Your task to perform on an android device: check out phone information Image 0: 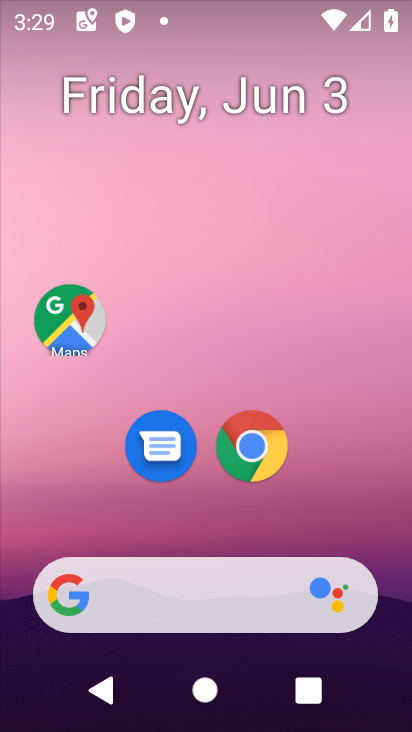
Step 0: drag from (343, 502) to (370, 86)
Your task to perform on an android device: check out phone information Image 1: 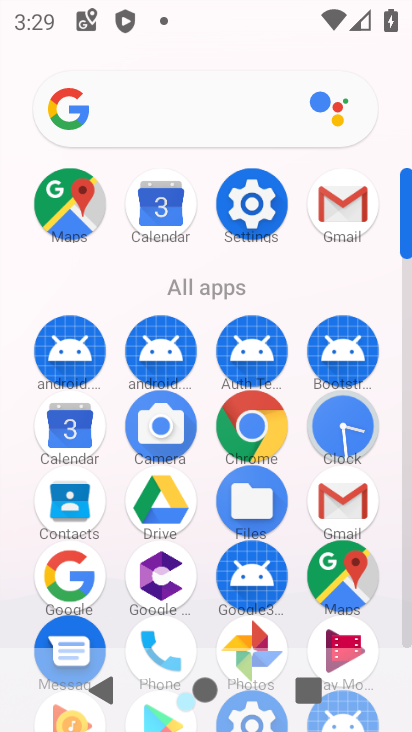
Step 1: click (277, 186)
Your task to perform on an android device: check out phone information Image 2: 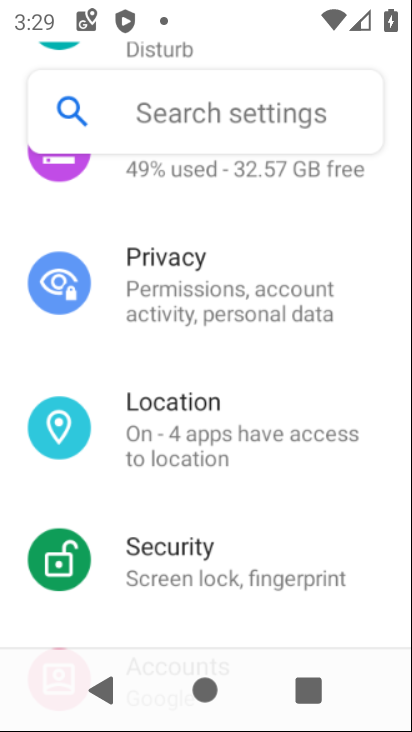
Step 2: task complete